Your task to perform on an android device: Open Yahoo.com Image 0: 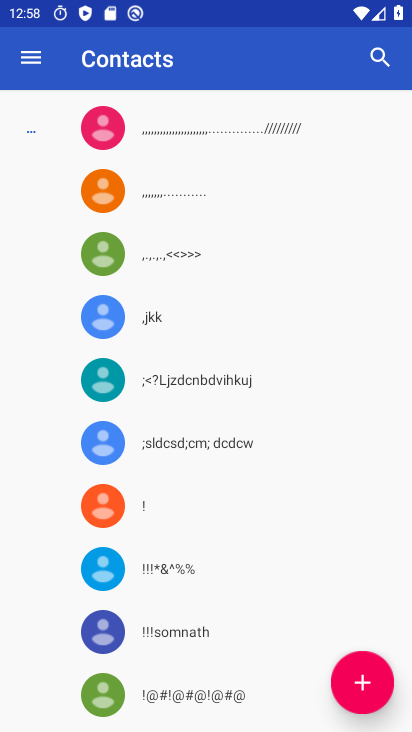
Step 0: press home button
Your task to perform on an android device: Open Yahoo.com Image 1: 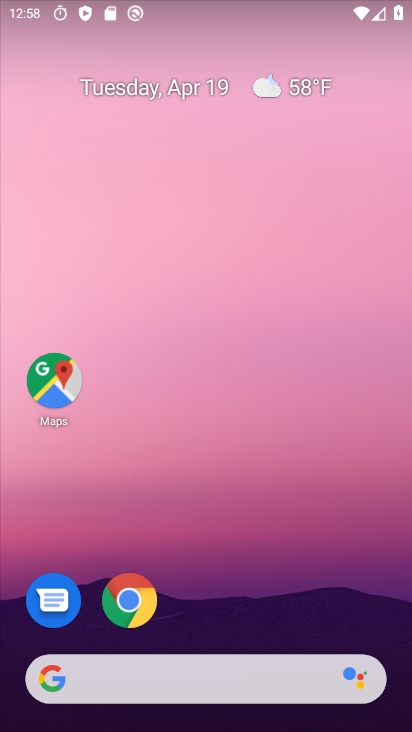
Step 1: drag from (239, 712) to (165, 133)
Your task to perform on an android device: Open Yahoo.com Image 2: 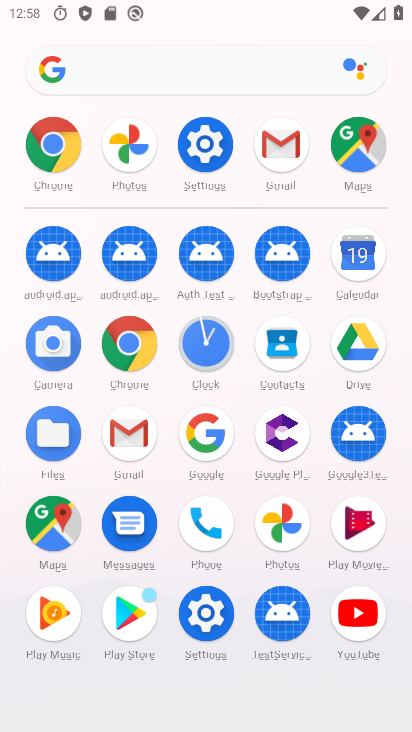
Step 2: click (62, 167)
Your task to perform on an android device: Open Yahoo.com Image 3: 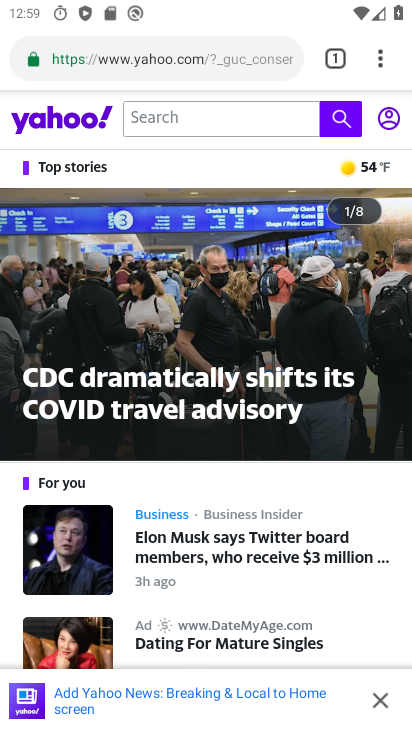
Step 3: task complete